Your task to perform on an android device: turn on showing notifications on the lock screen Image 0: 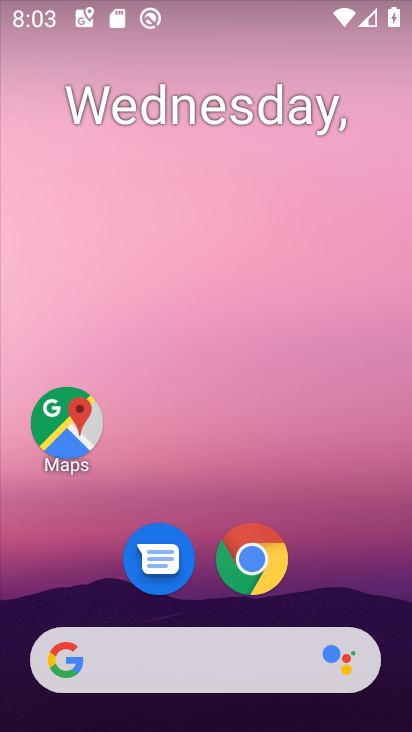
Step 0: drag from (332, 558) to (334, 150)
Your task to perform on an android device: turn on showing notifications on the lock screen Image 1: 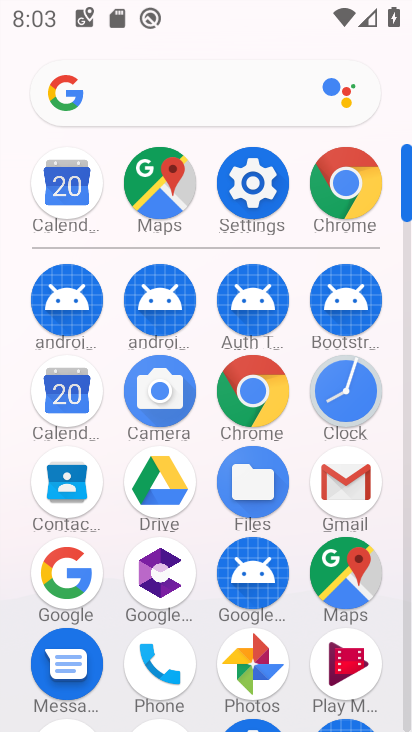
Step 1: click (267, 203)
Your task to perform on an android device: turn on showing notifications on the lock screen Image 2: 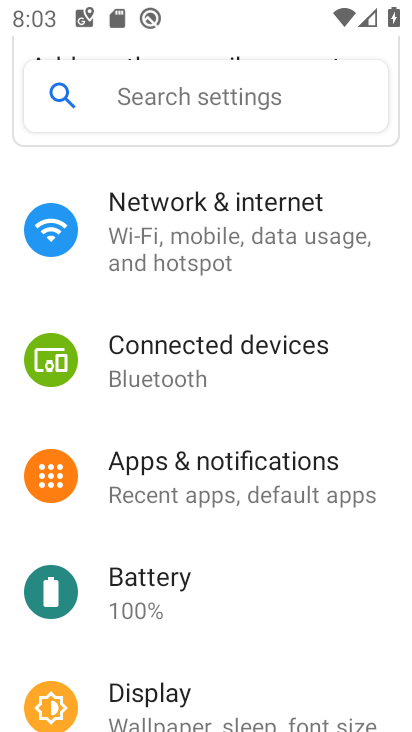
Step 2: click (230, 478)
Your task to perform on an android device: turn on showing notifications on the lock screen Image 3: 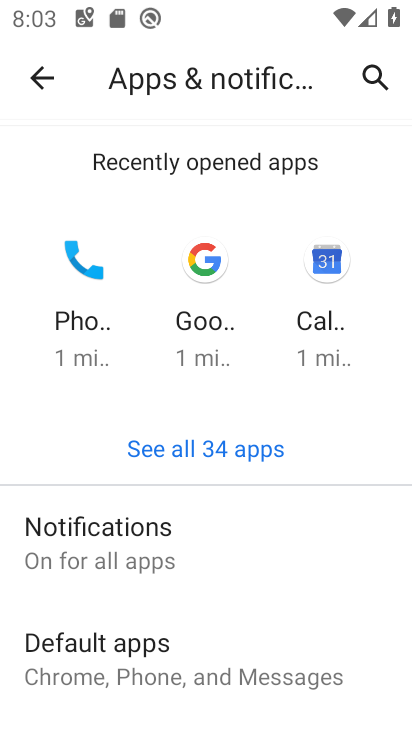
Step 3: click (106, 535)
Your task to perform on an android device: turn on showing notifications on the lock screen Image 4: 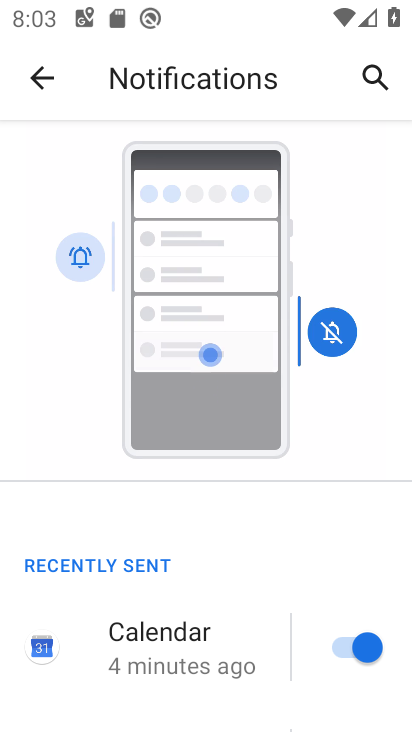
Step 4: drag from (282, 528) to (331, 168)
Your task to perform on an android device: turn on showing notifications on the lock screen Image 5: 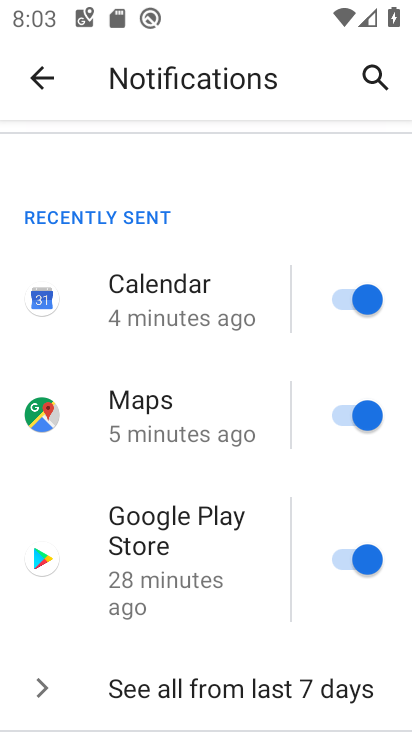
Step 5: drag from (256, 608) to (276, 193)
Your task to perform on an android device: turn on showing notifications on the lock screen Image 6: 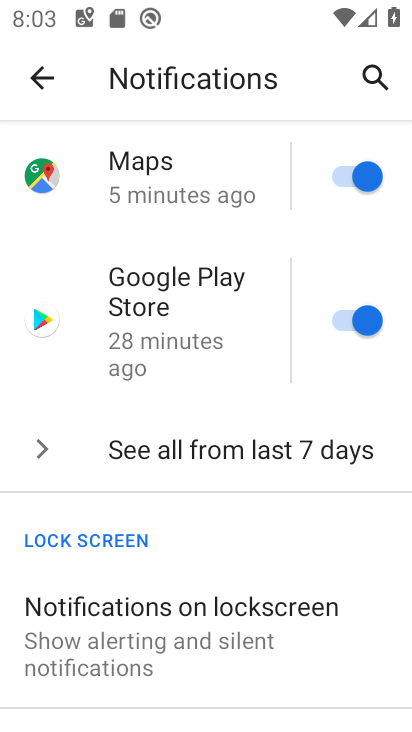
Step 6: click (187, 618)
Your task to perform on an android device: turn on showing notifications on the lock screen Image 7: 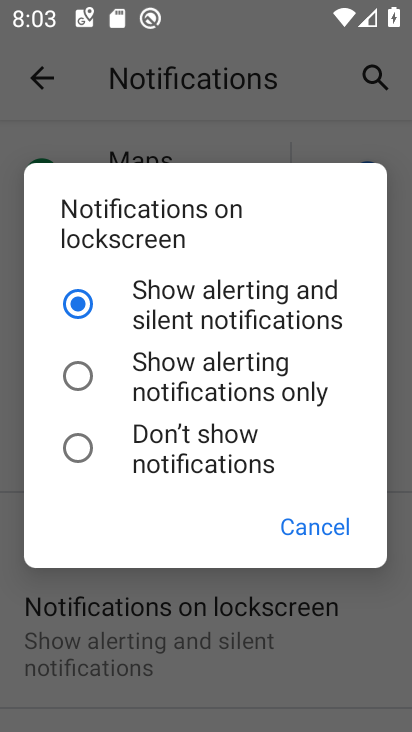
Step 7: task complete